Your task to perform on an android device: Go to notification settings Image 0: 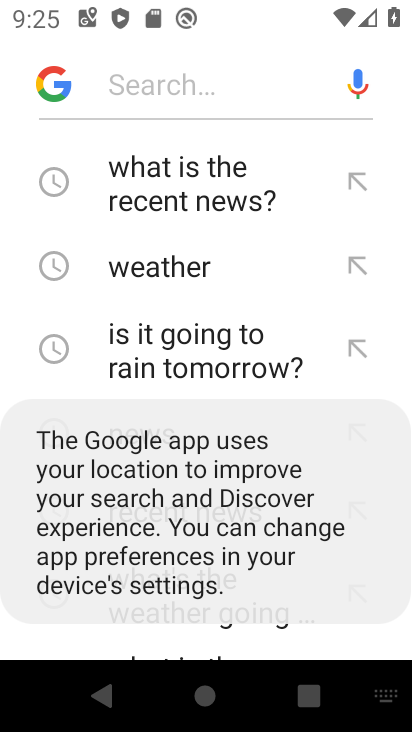
Step 0: press home button
Your task to perform on an android device: Go to notification settings Image 1: 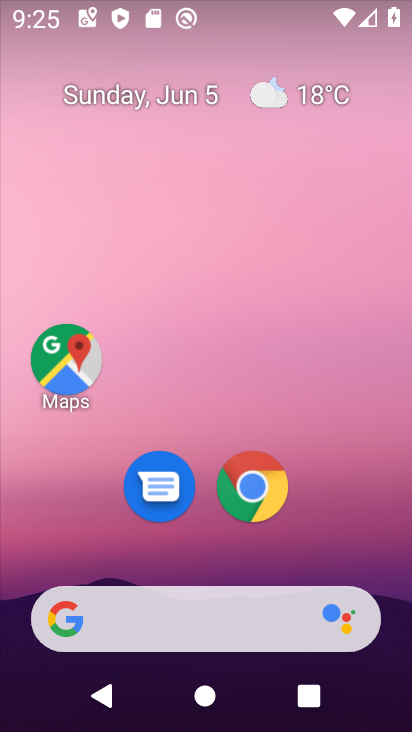
Step 1: drag from (350, 539) to (368, 162)
Your task to perform on an android device: Go to notification settings Image 2: 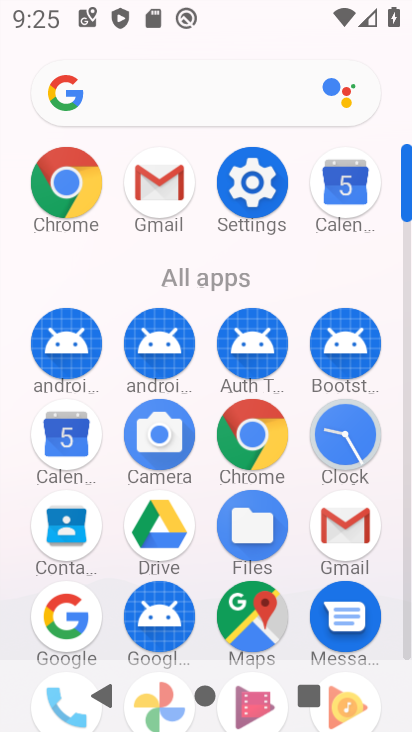
Step 2: click (262, 207)
Your task to perform on an android device: Go to notification settings Image 3: 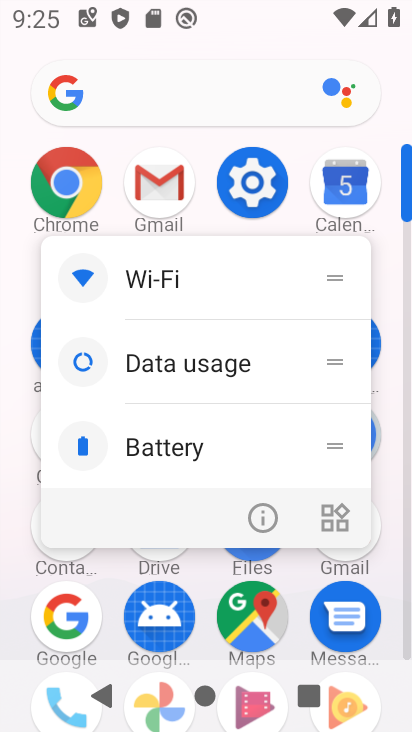
Step 3: click (258, 188)
Your task to perform on an android device: Go to notification settings Image 4: 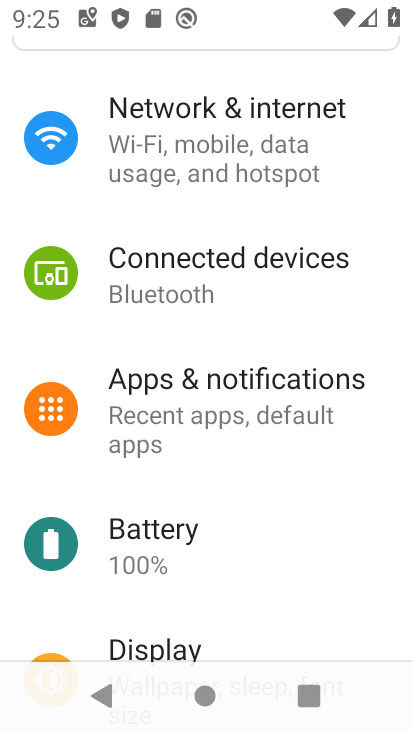
Step 4: click (251, 399)
Your task to perform on an android device: Go to notification settings Image 5: 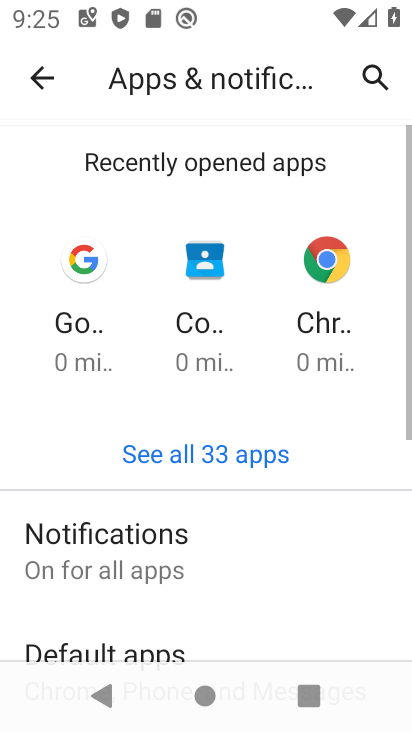
Step 5: drag from (308, 589) to (325, 367)
Your task to perform on an android device: Go to notification settings Image 6: 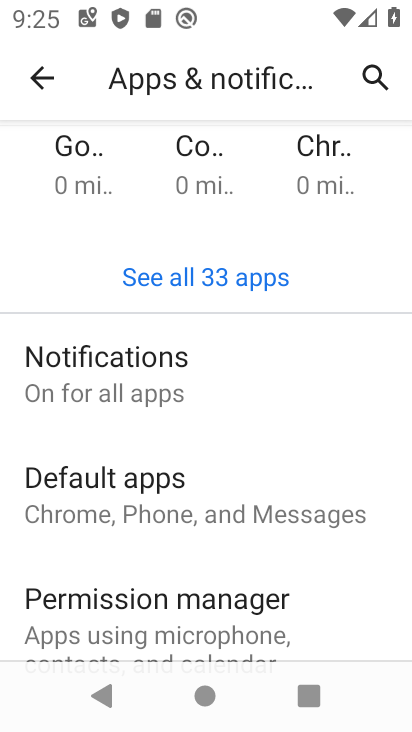
Step 6: click (227, 381)
Your task to perform on an android device: Go to notification settings Image 7: 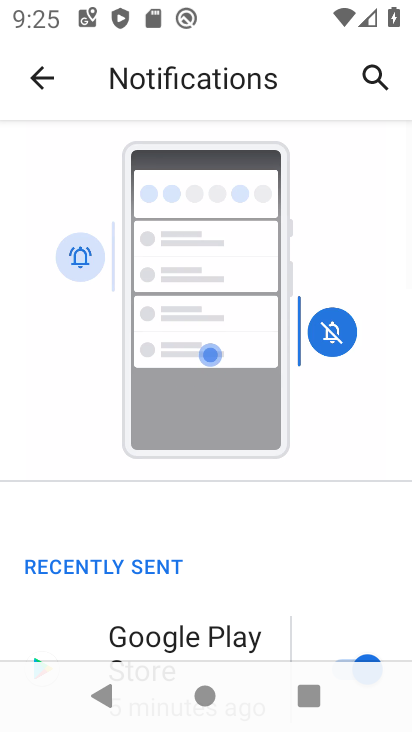
Step 7: task complete